Your task to perform on an android device: Go to ESPN.com Image 0: 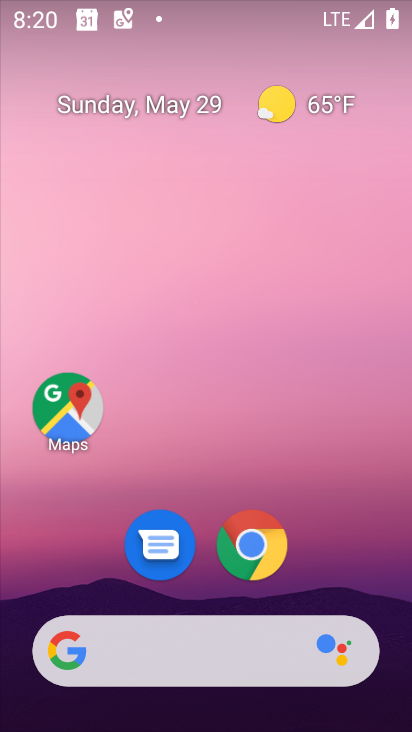
Step 0: click (250, 545)
Your task to perform on an android device: Go to ESPN.com Image 1: 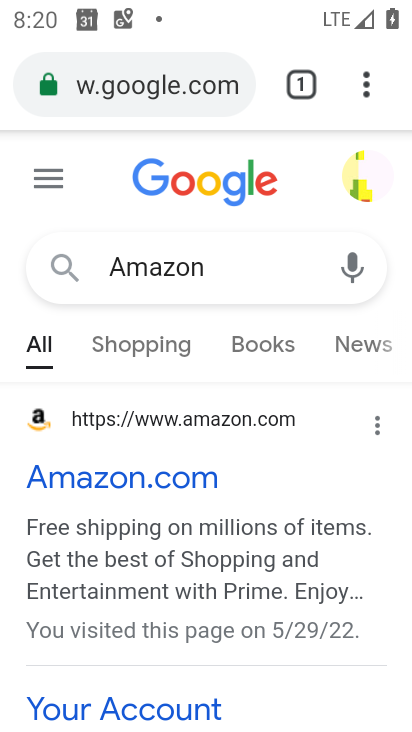
Step 1: click (143, 86)
Your task to perform on an android device: Go to ESPN.com Image 2: 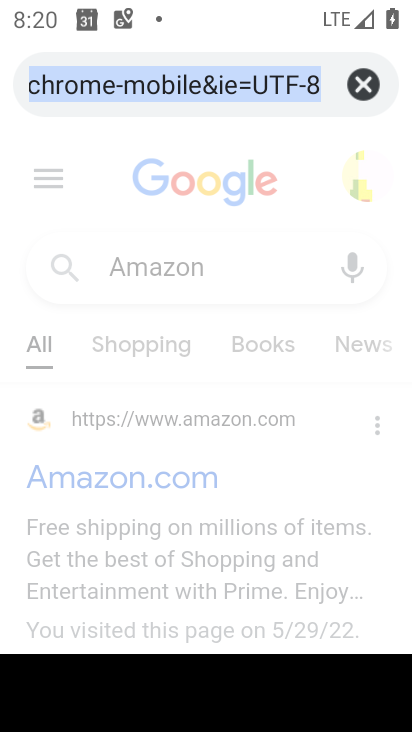
Step 2: type "ESPN.com"
Your task to perform on an android device: Go to ESPN.com Image 3: 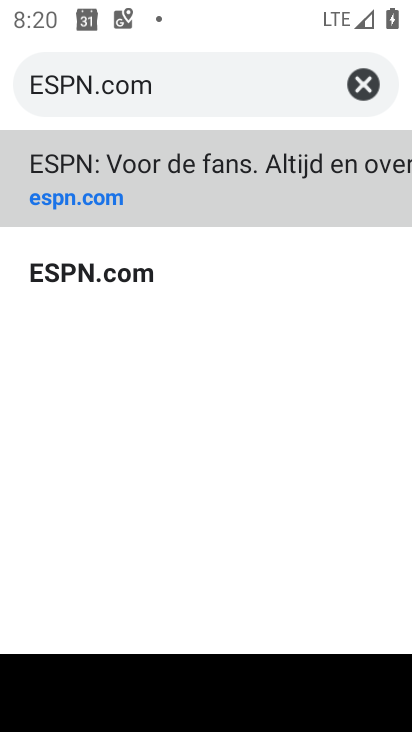
Step 3: click (122, 278)
Your task to perform on an android device: Go to ESPN.com Image 4: 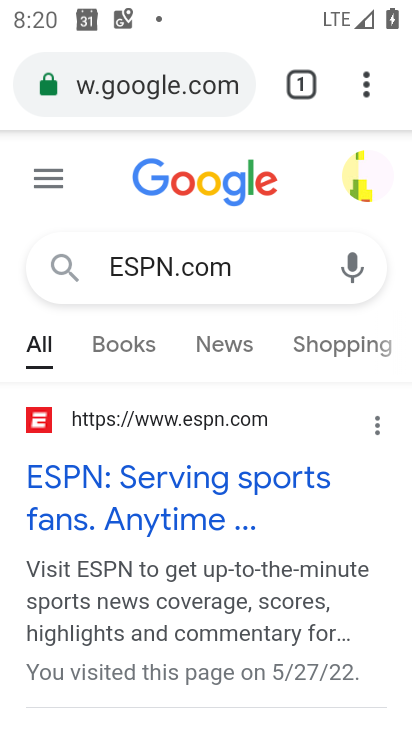
Step 4: task complete